Your task to perform on an android device: move an email to a new category in the gmail app Image 0: 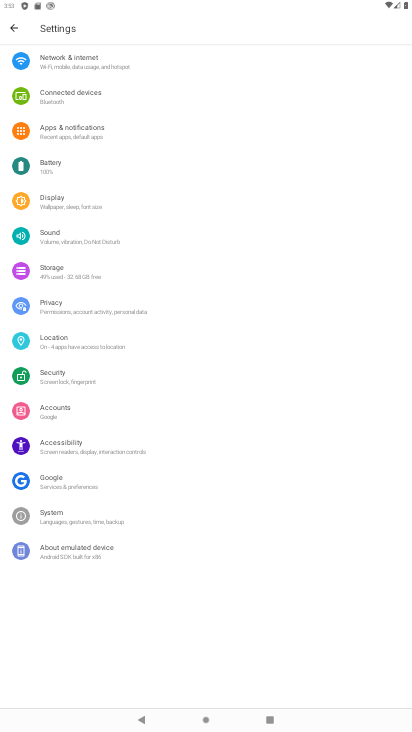
Step 0: press home button
Your task to perform on an android device: move an email to a new category in the gmail app Image 1: 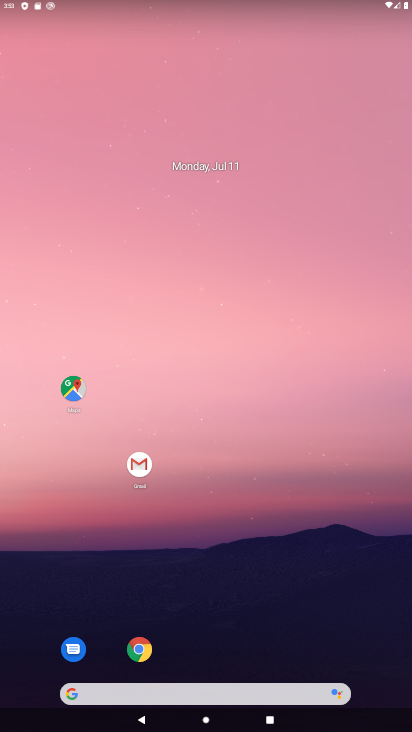
Step 1: click (140, 475)
Your task to perform on an android device: move an email to a new category in the gmail app Image 2: 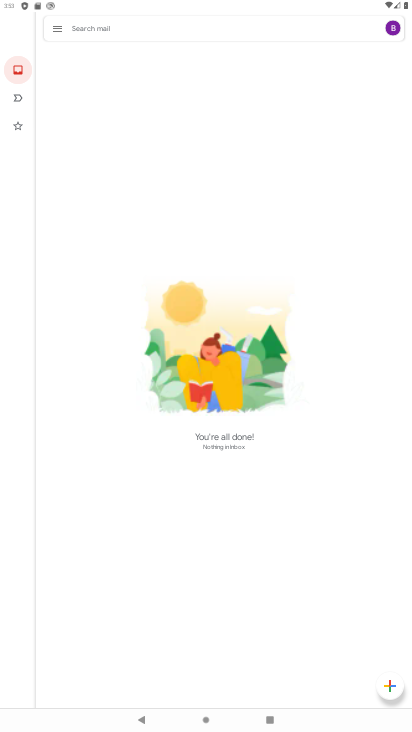
Step 2: click (20, 77)
Your task to perform on an android device: move an email to a new category in the gmail app Image 3: 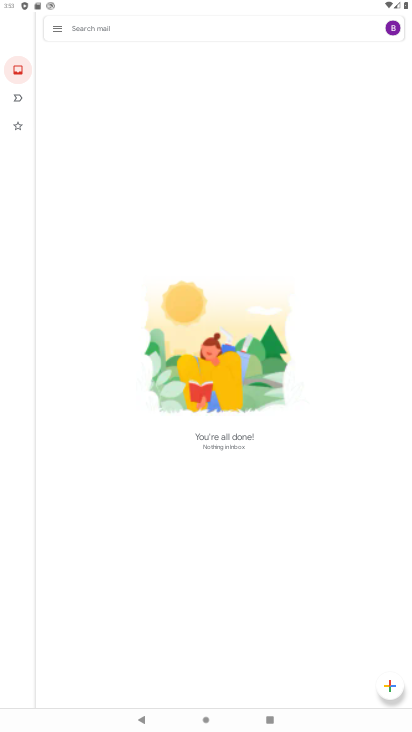
Step 3: click (61, 20)
Your task to perform on an android device: move an email to a new category in the gmail app Image 4: 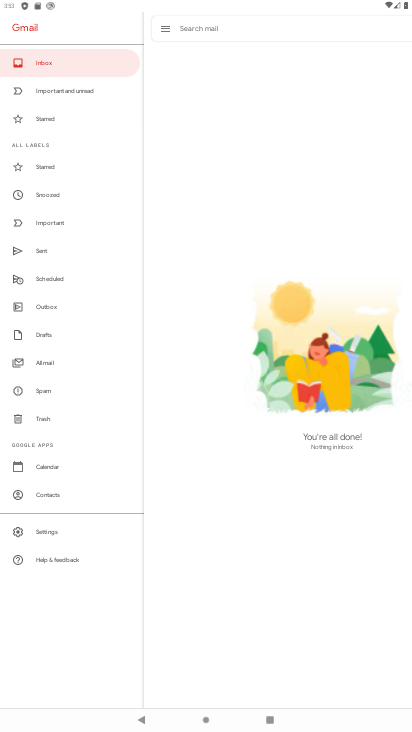
Step 4: click (77, 61)
Your task to perform on an android device: move an email to a new category in the gmail app Image 5: 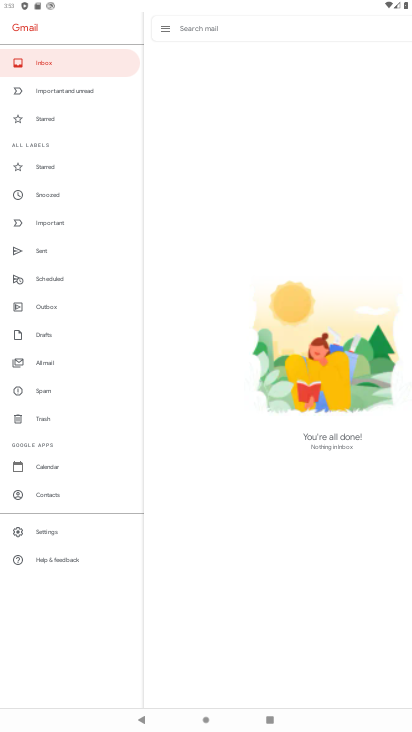
Step 5: click (84, 57)
Your task to perform on an android device: move an email to a new category in the gmail app Image 6: 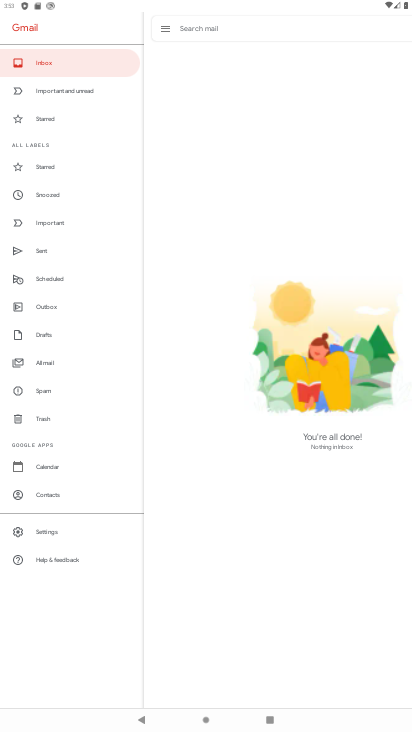
Step 6: task complete